Your task to perform on an android device: star an email in the gmail app Image 0: 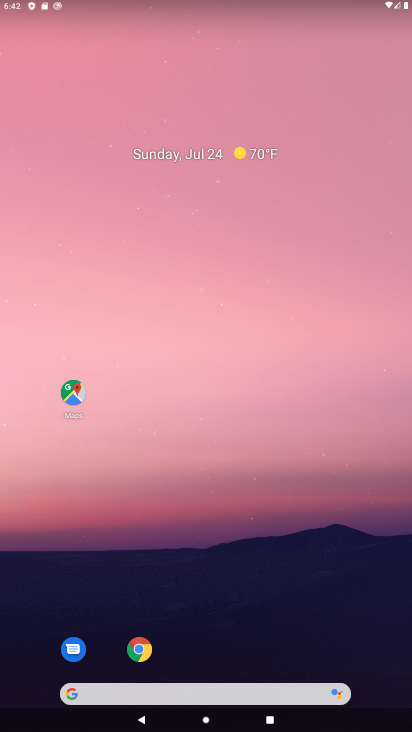
Step 0: drag from (238, 628) to (192, 19)
Your task to perform on an android device: star an email in the gmail app Image 1: 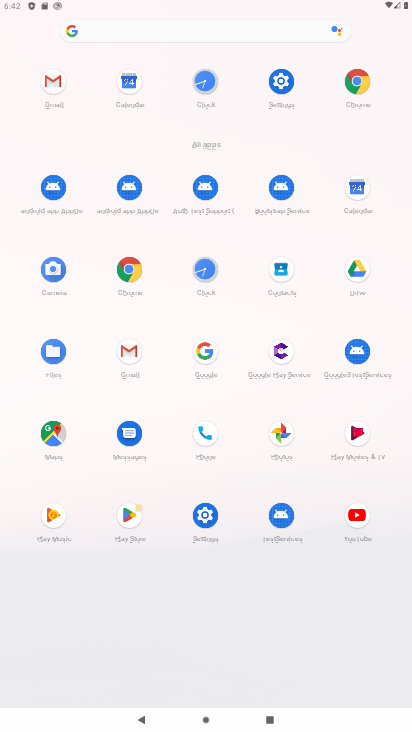
Step 1: click (130, 353)
Your task to perform on an android device: star an email in the gmail app Image 2: 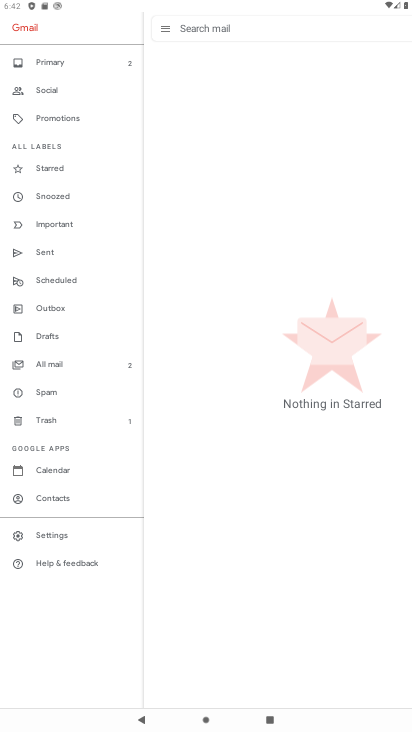
Step 2: click (51, 365)
Your task to perform on an android device: star an email in the gmail app Image 3: 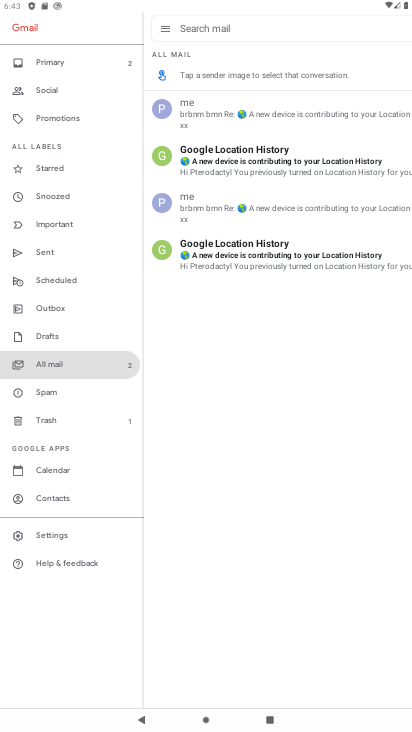
Step 3: click (169, 27)
Your task to perform on an android device: star an email in the gmail app Image 4: 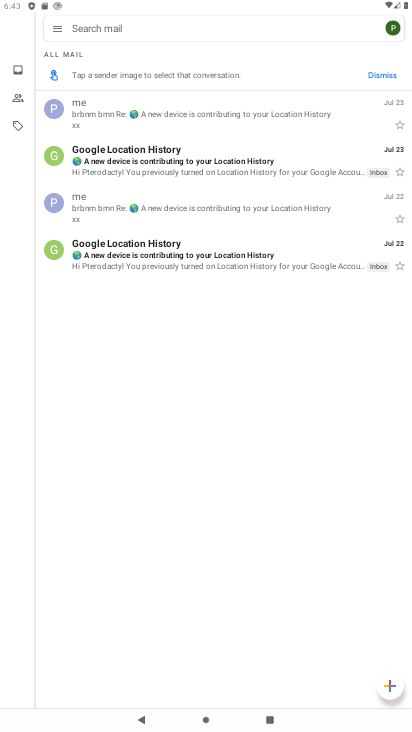
Step 4: click (400, 130)
Your task to perform on an android device: star an email in the gmail app Image 5: 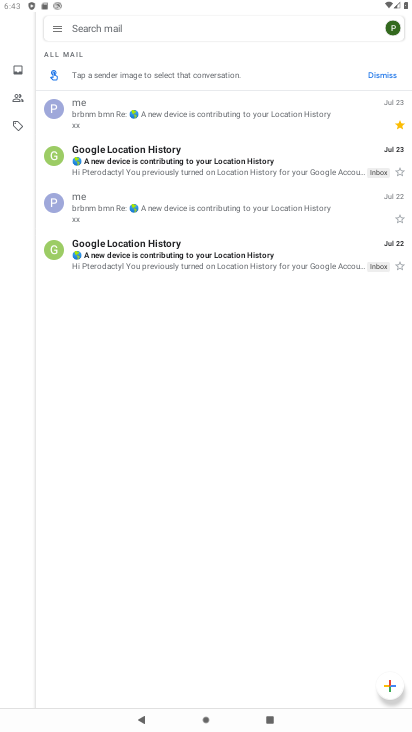
Step 5: task complete